Your task to perform on an android device: Search for a new lawnmower on Lowes.com Image 0: 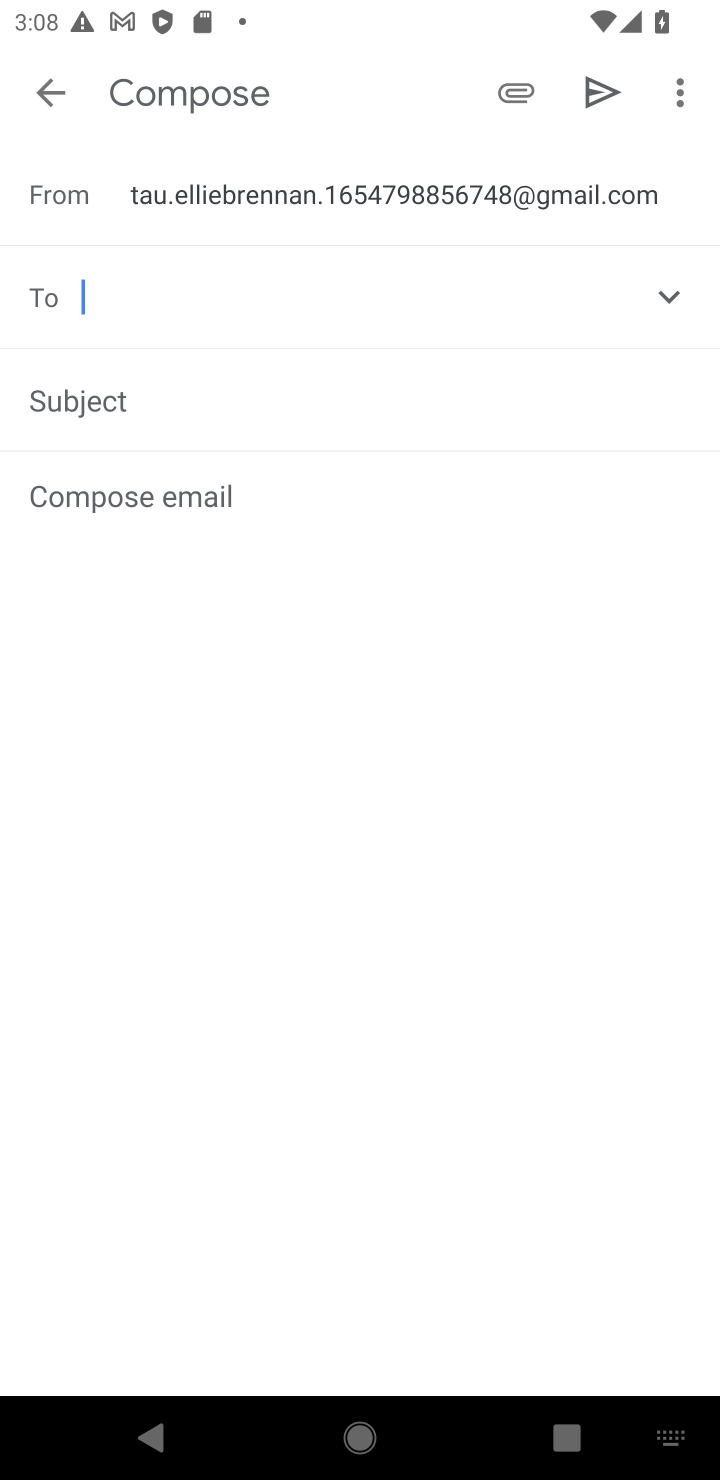
Step 0: press home button
Your task to perform on an android device: Search for a new lawnmower on Lowes.com Image 1: 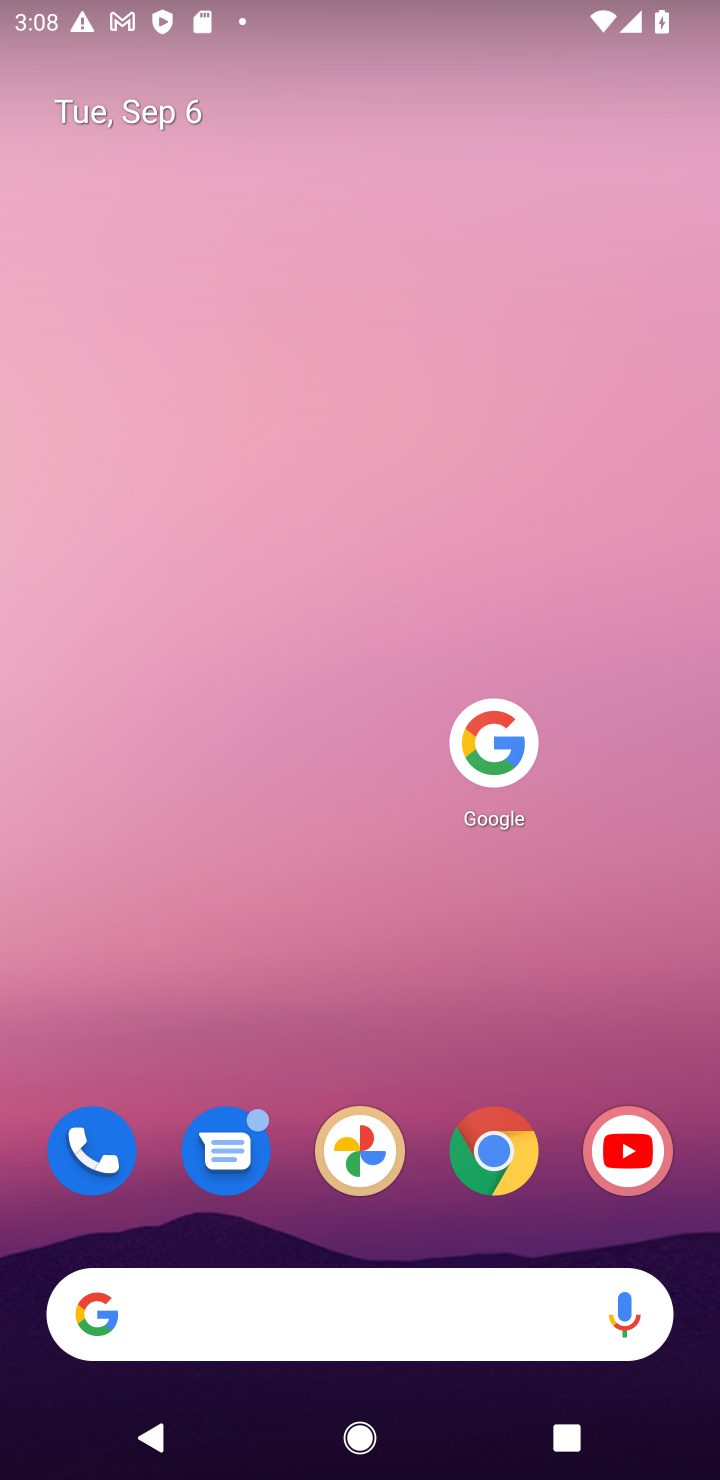
Step 1: click (492, 747)
Your task to perform on an android device: Search for a new lawnmower on Lowes.com Image 2: 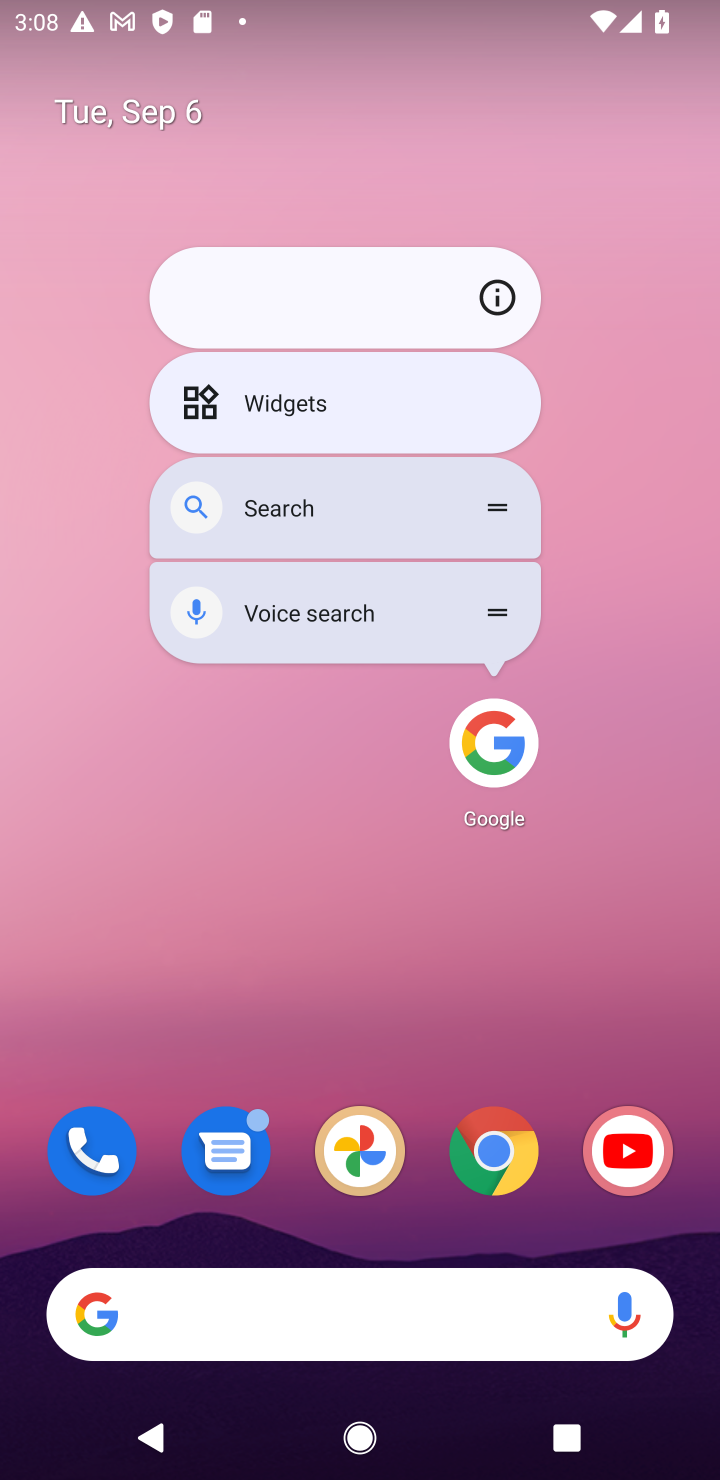
Step 2: click (492, 747)
Your task to perform on an android device: Search for a new lawnmower on Lowes.com Image 3: 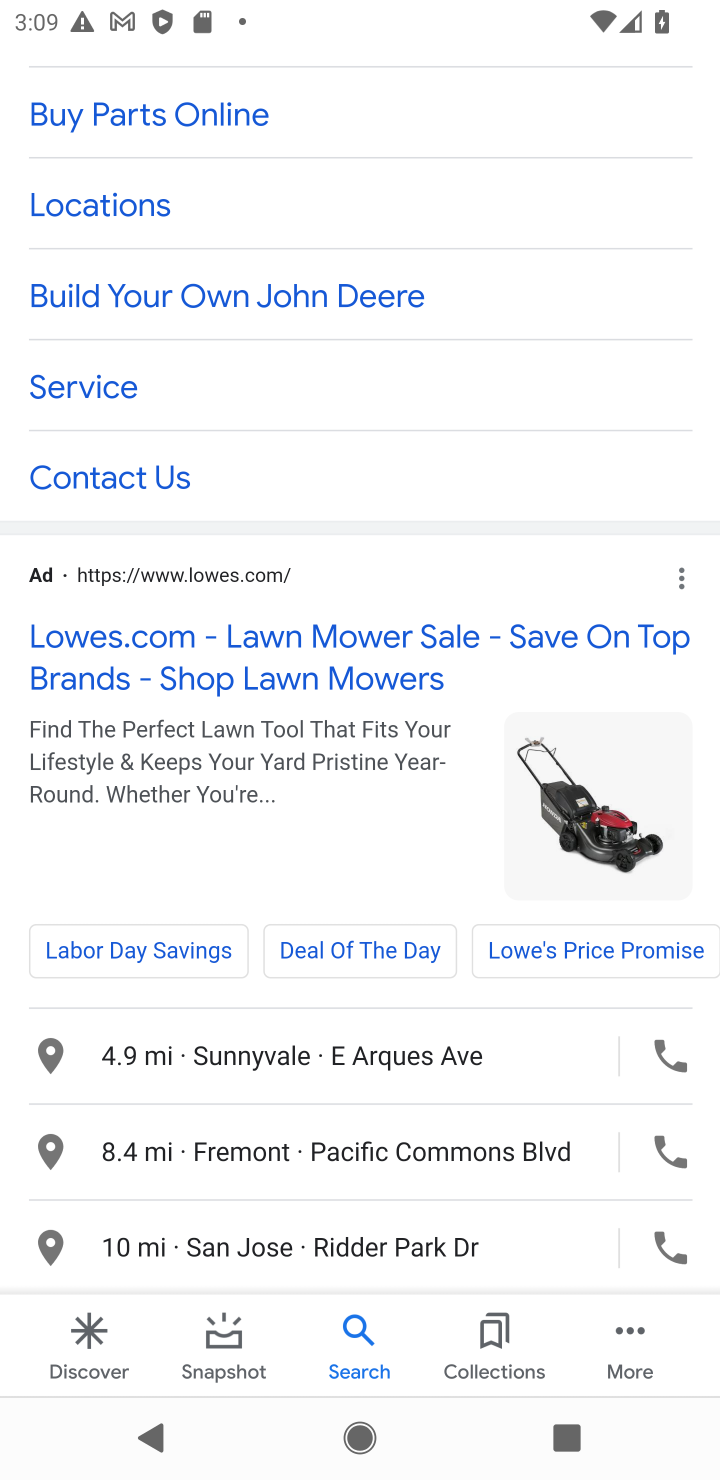
Step 3: drag from (412, 338) to (408, 1194)
Your task to perform on an android device: Search for a new lawnmower on Lowes.com Image 4: 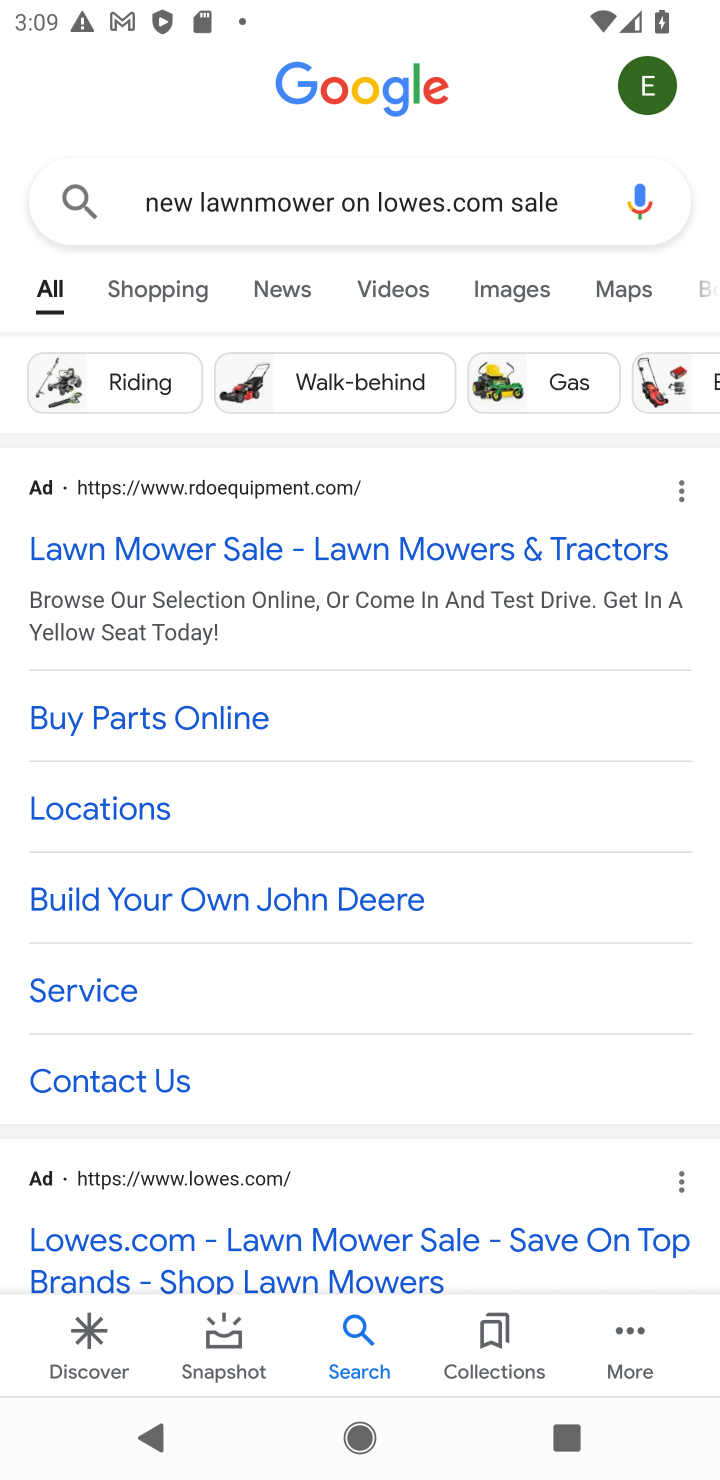
Step 4: click (286, 194)
Your task to perform on an android device: Search for a new lawnmower on Lowes.com Image 5: 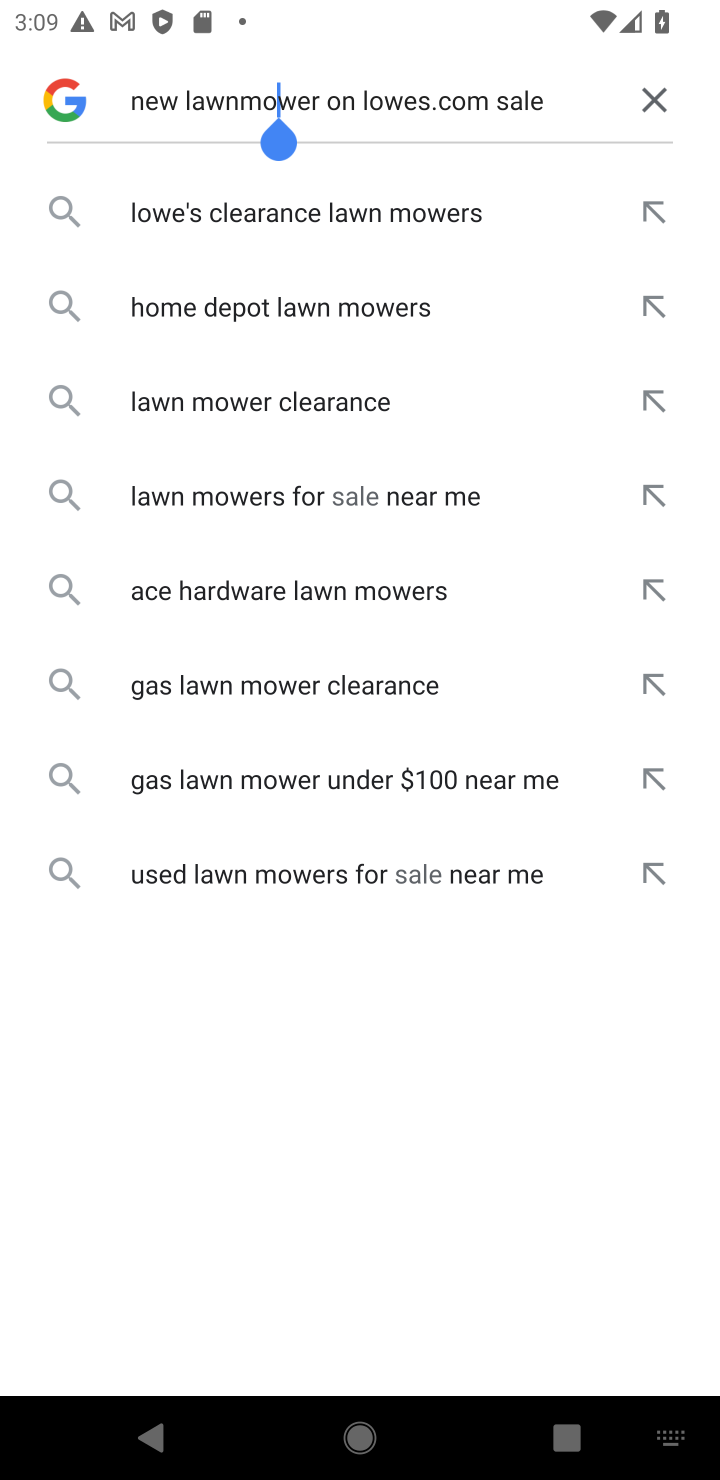
Step 5: click (645, 98)
Your task to perform on an android device: Search for a new lawnmower on Lowes.com Image 6: 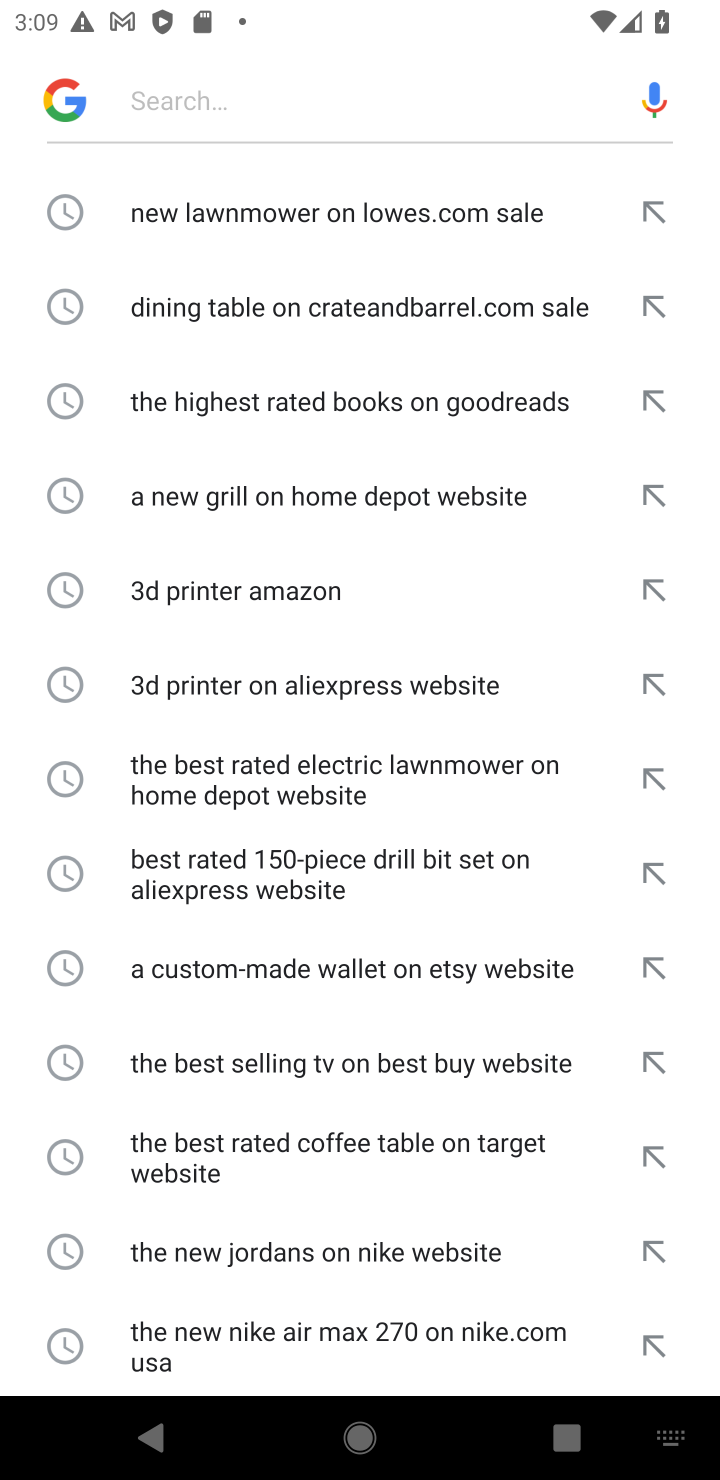
Step 6: click (279, 70)
Your task to perform on an android device: Search for a new lawnmower on Lowes.com Image 7: 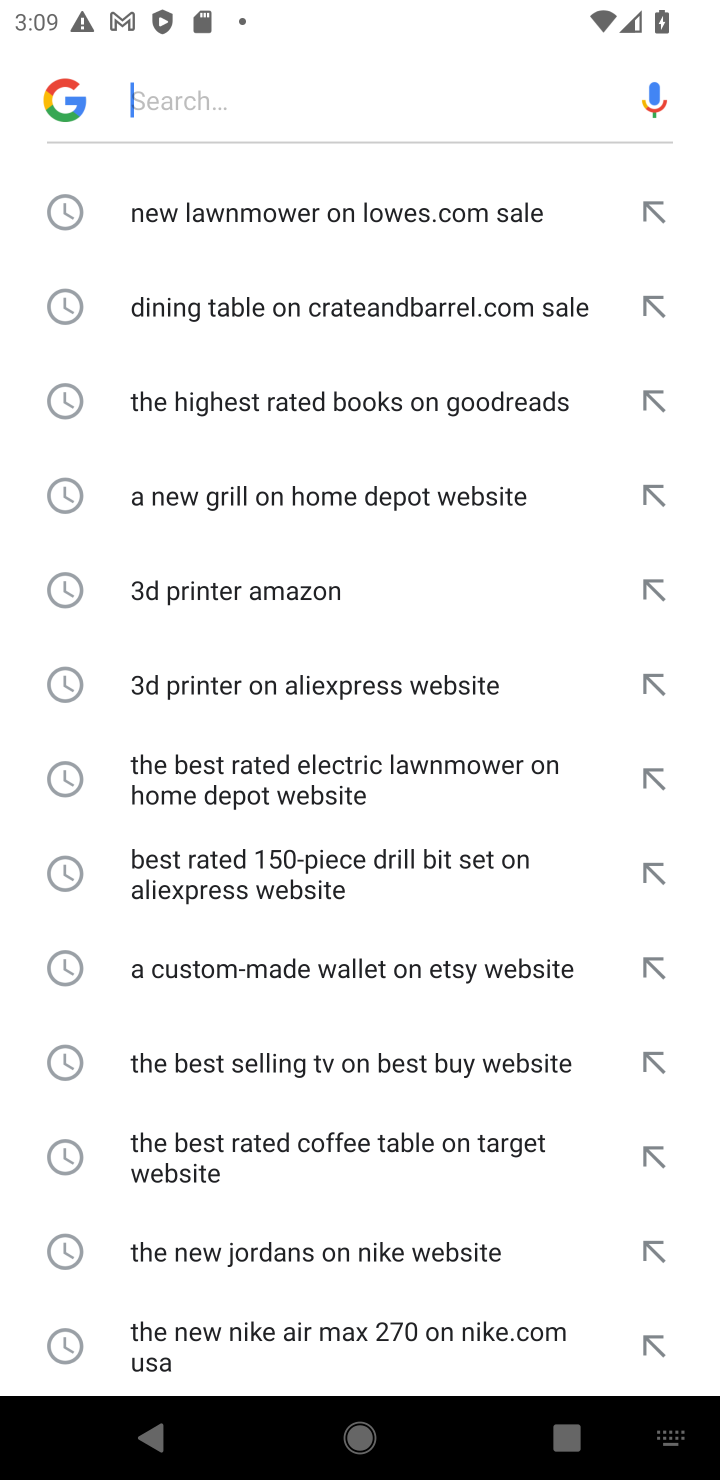
Step 7: type "a new lawnmower on Lowes.com "
Your task to perform on an android device: Search for a new lawnmower on Lowes.com Image 8: 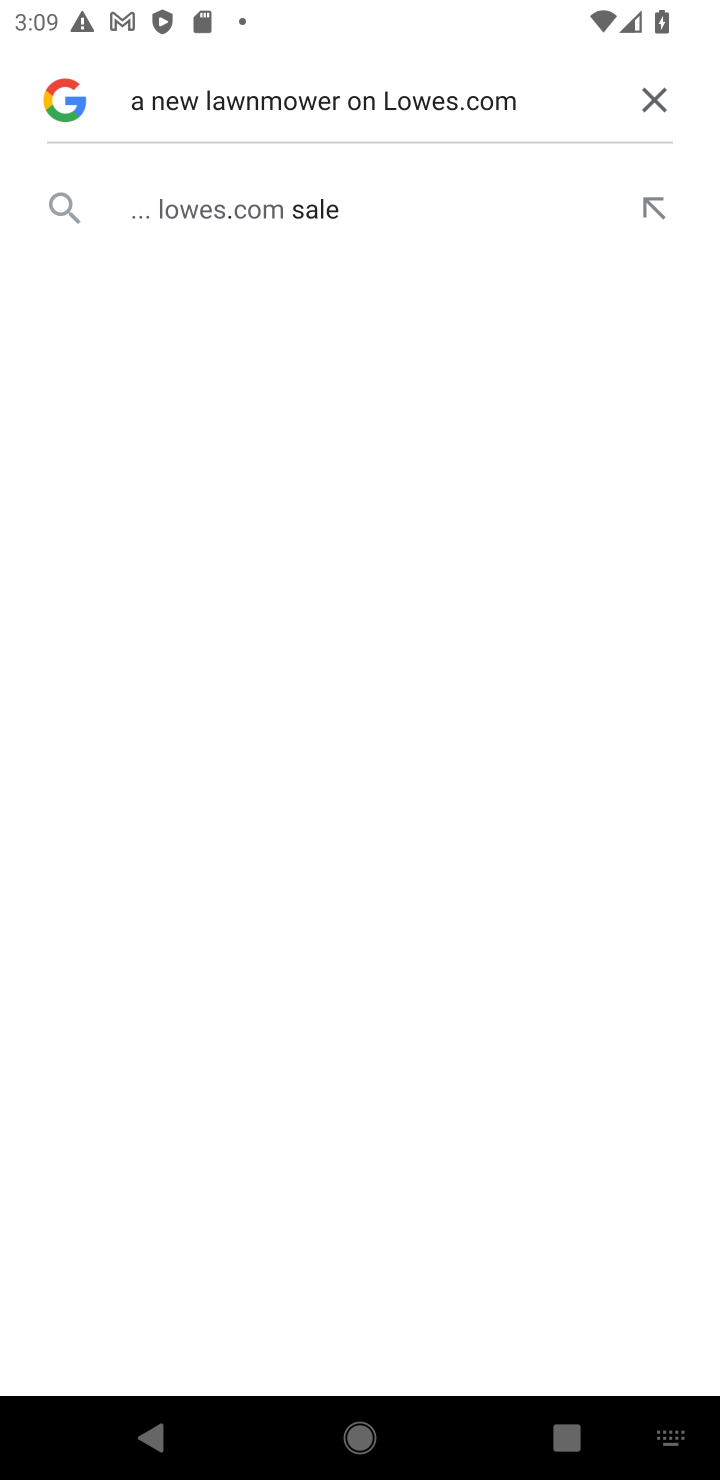
Step 8: click (345, 201)
Your task to perform on an android device: Search for a new lawnmower on Lowes.com Image 9: 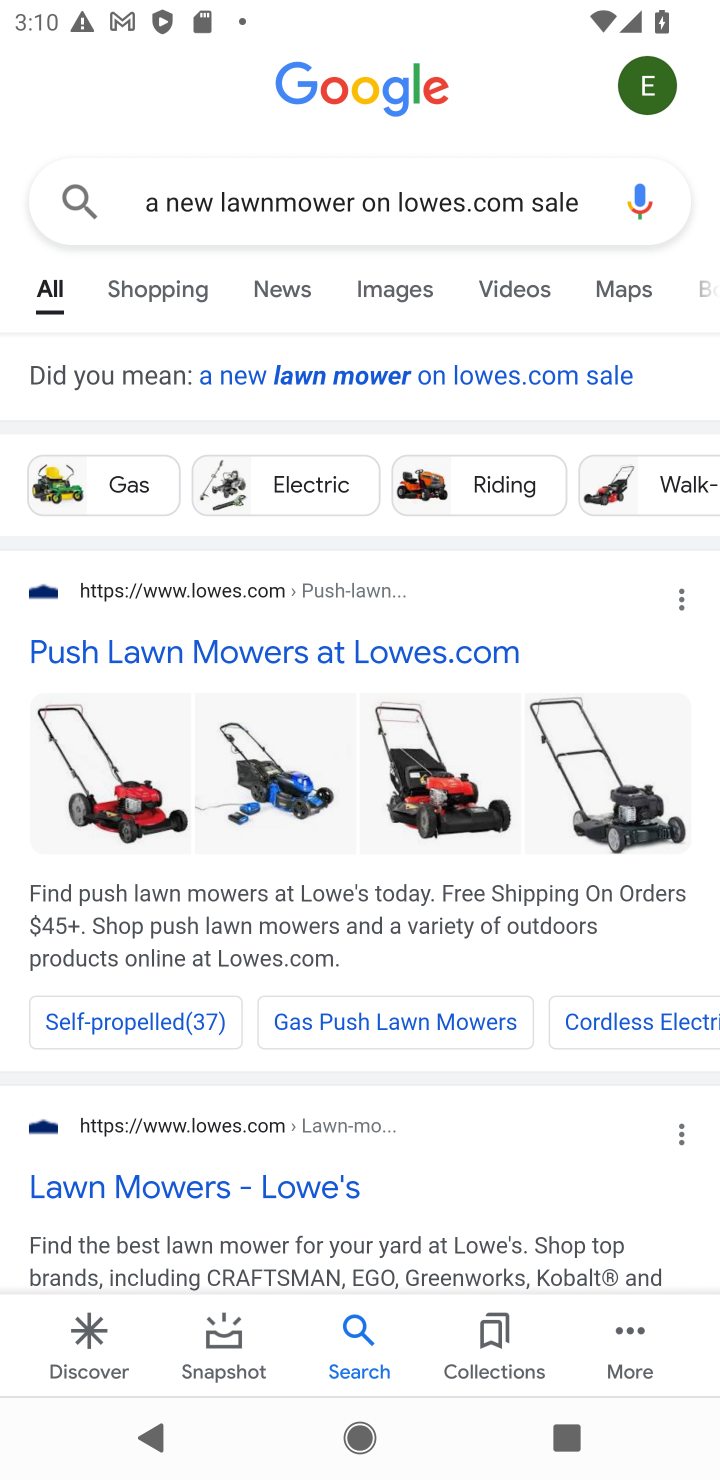
Step 9: task complete